Your task to perform on an android device: Open CNN.com Image 0: 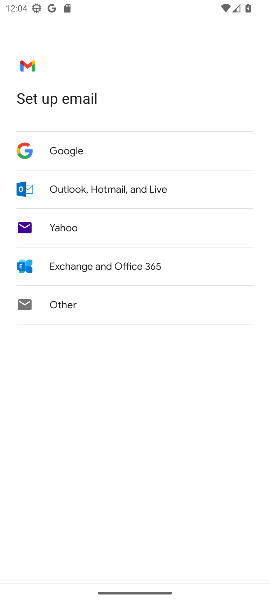
Step 0: press home button
Your task to perform on an android device: Open CNN.com Image 1: 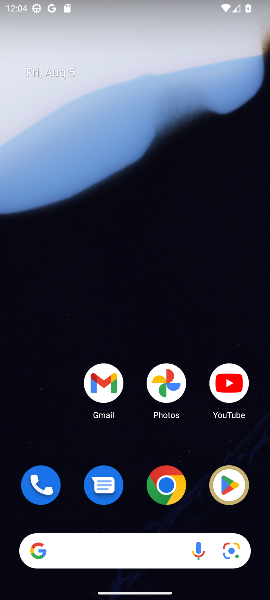
Step 1: click (165, 482)
Your task to perform on an android device: Open CNN.com Image 2: 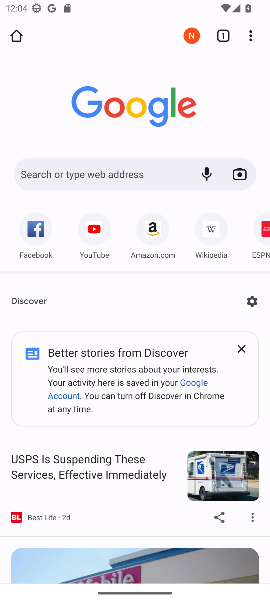
Step 2: click (97, 174)
Your task to perform on an android device: Open CNN.com Image 3: 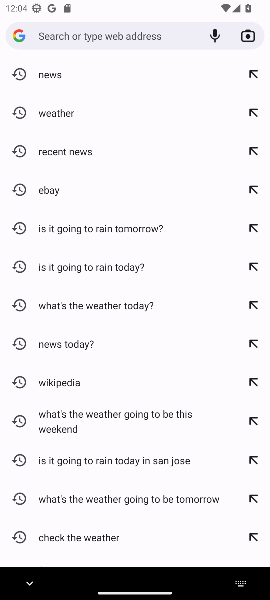
Step 3: type "cnn.com"
Your task to perform on an android device: Open CNN.com Image 4: 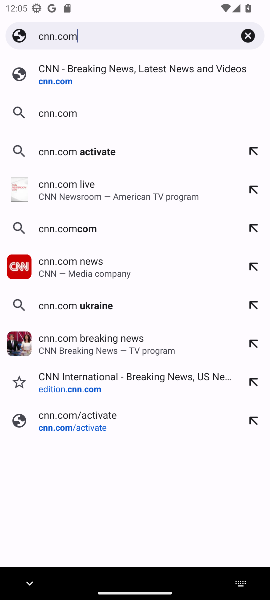
Step 4: click (49, 66)
Your task to perform on an android device: Open CNN.com Image 5: 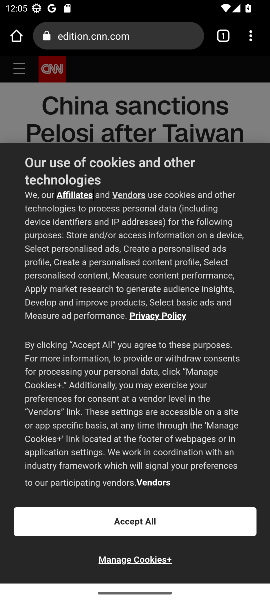
Step 5: click (141, 516)
Your task to perform on an android device: Open CNN.com Image 6: 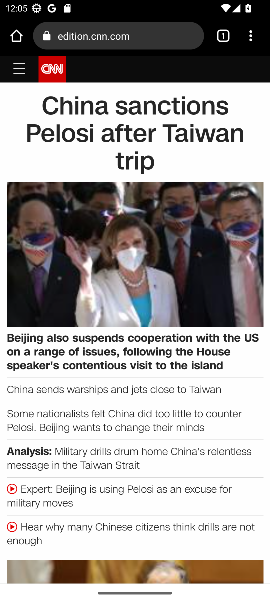
Step 6: task complete